Your task to perform on an android device: Open calendar and show me the first week of next month Image 0: 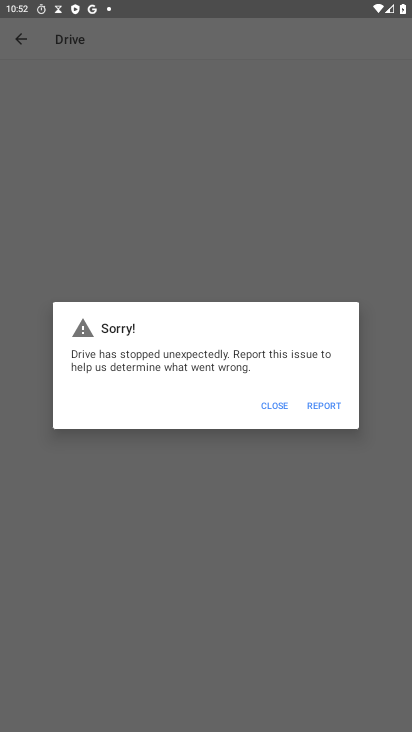
Step 0: press home button
Your task to perform on an android device: Open calendar and show me the first week of next month Image 1: 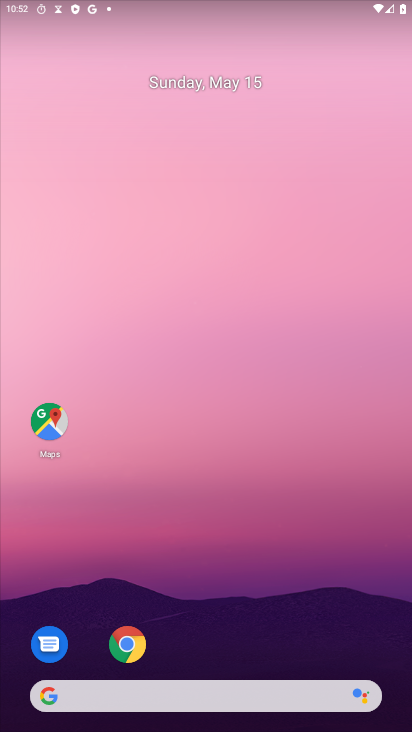
Step 1: drag from (221, 638) to (221, 156)
Your task to perform on an android device: Open calendar and show me the first week of next month Image 2: 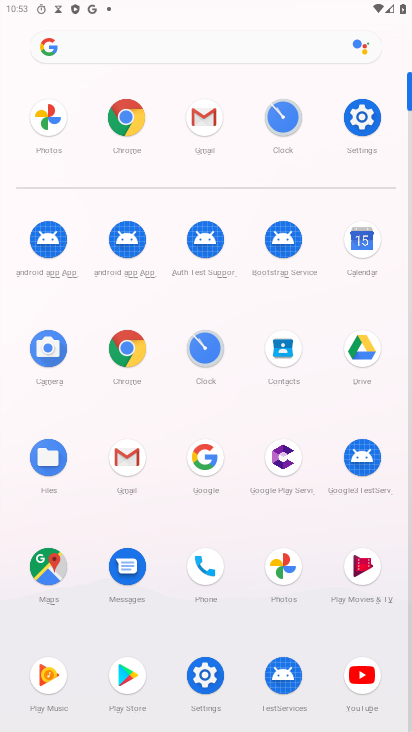
Step 2: click (366, 254)
Your task to perform on an android device: Open calendar and show me the first week of next month Image 3: 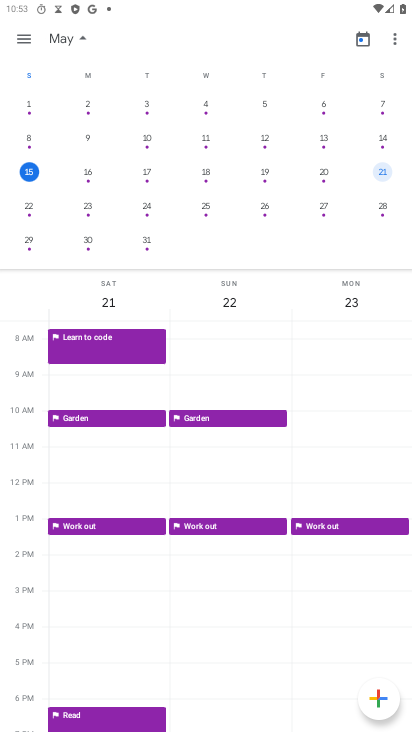
Step 3: drag from (391, 142) to (48, 114)
Your task to perform on an android device: Open calendar and show me the first week of next month Image 4: 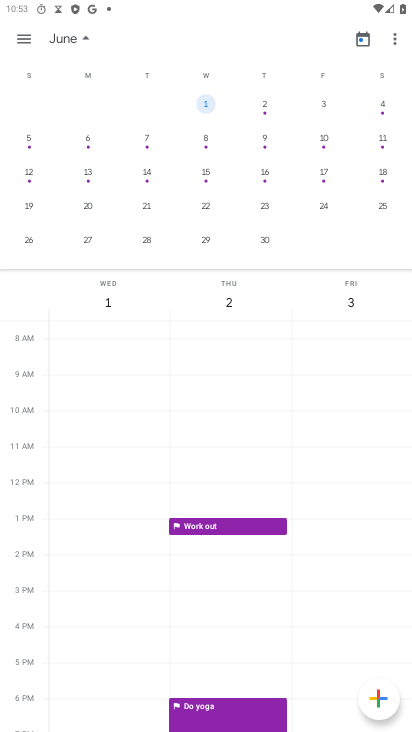
Step 4: click (23, 38)
Your task to perform on an android device: Open calendar and show me the first week of next month Image 5: 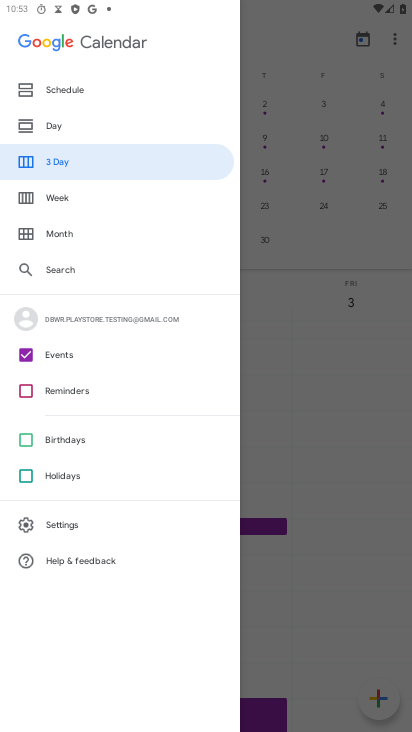
Step 5: click (61, 206)
Your task to perform on an android device: Open calendar and show me the first week of next month Image 6: 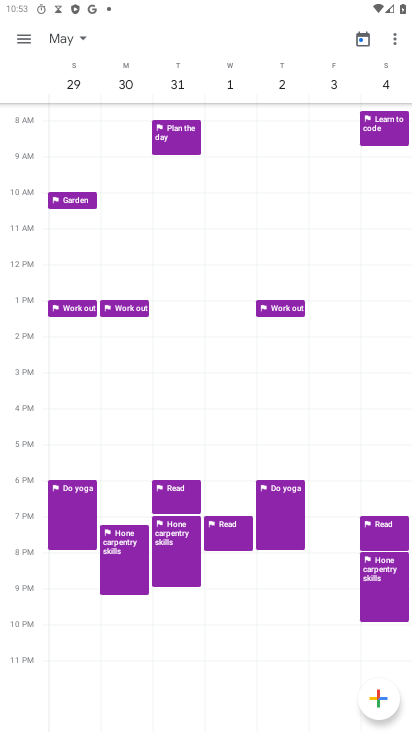
Step 6: task complete